Your task to perform on an android device: open app "Venmo" Image 0: 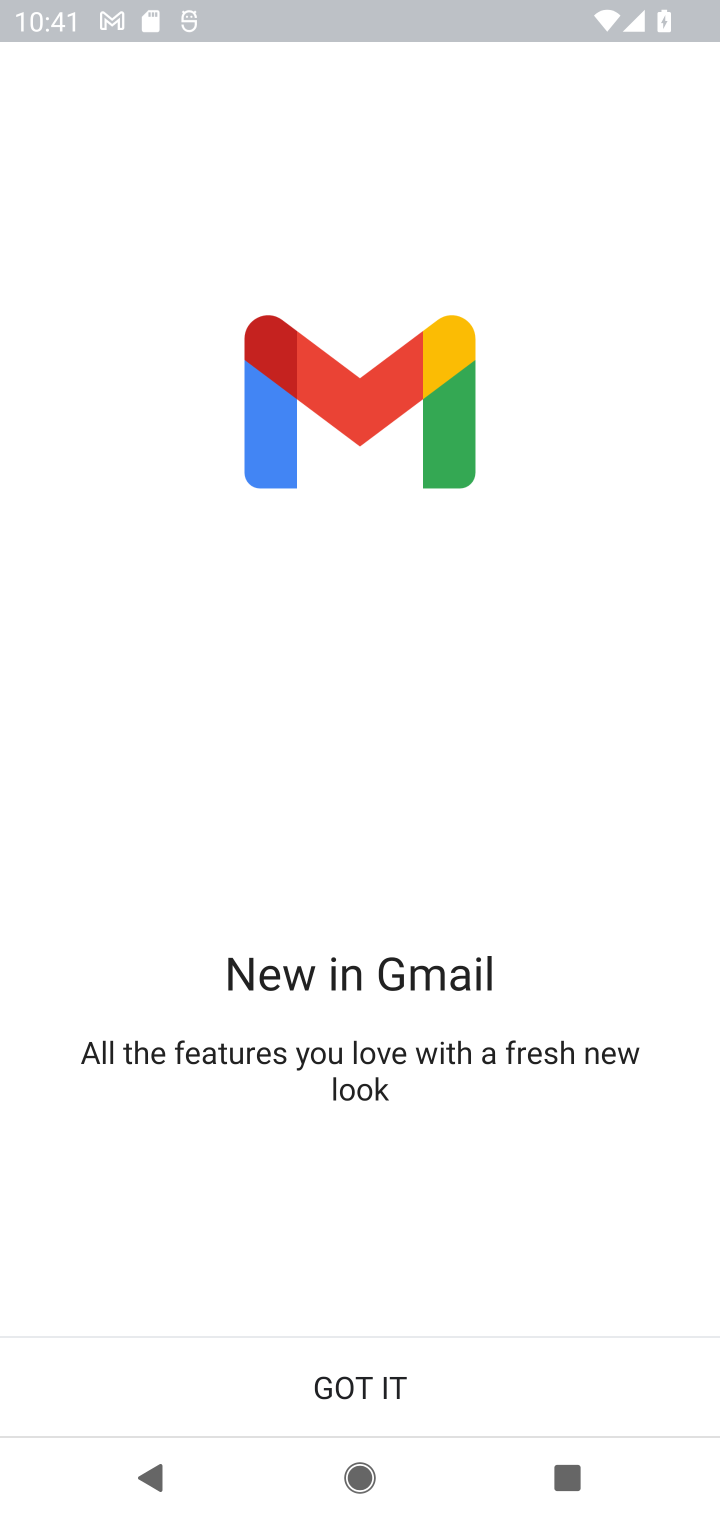
Step 0: press home button
Your task to perform on an android device: open app "Venmo" Image 1: 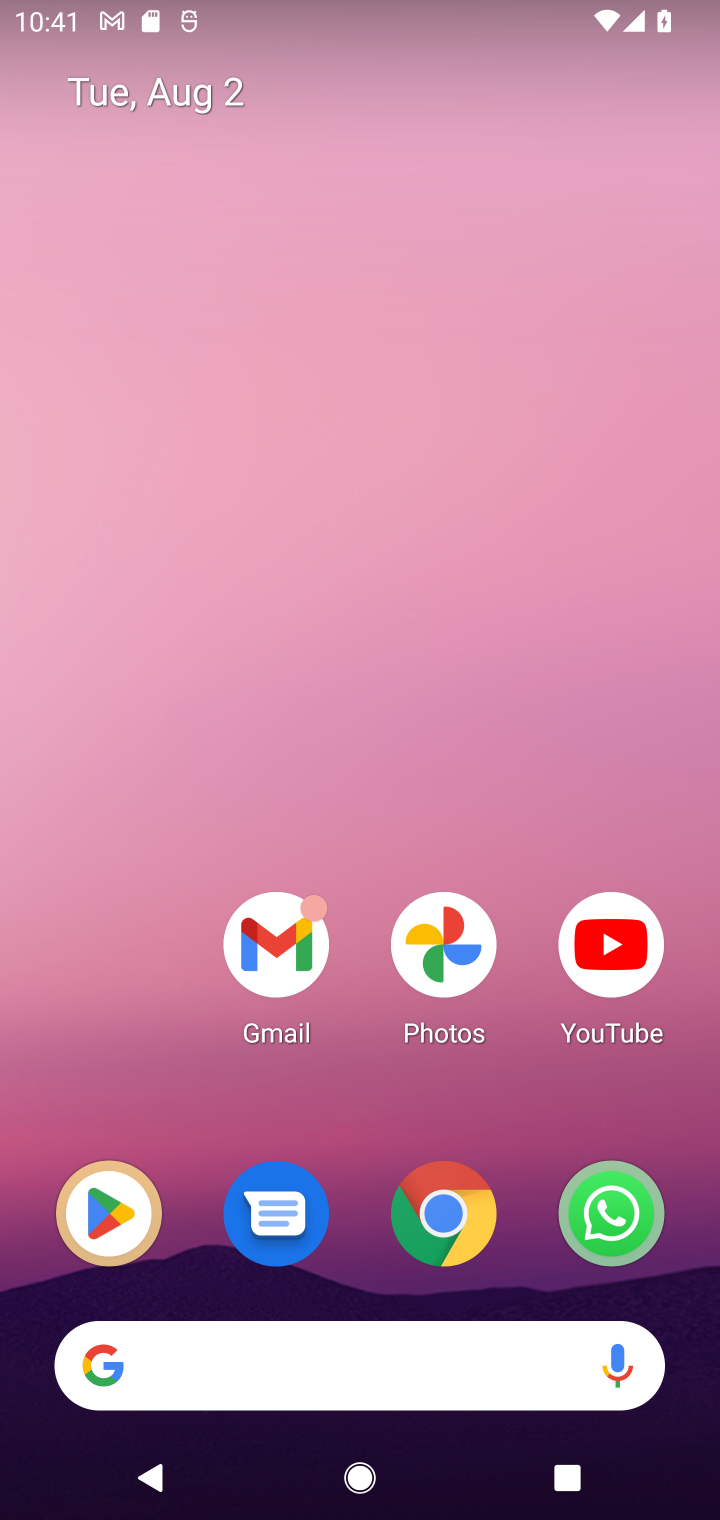
Step 1: click (96, 1199)
Your task to perform on an android device: open app "Venmo" Image 2: 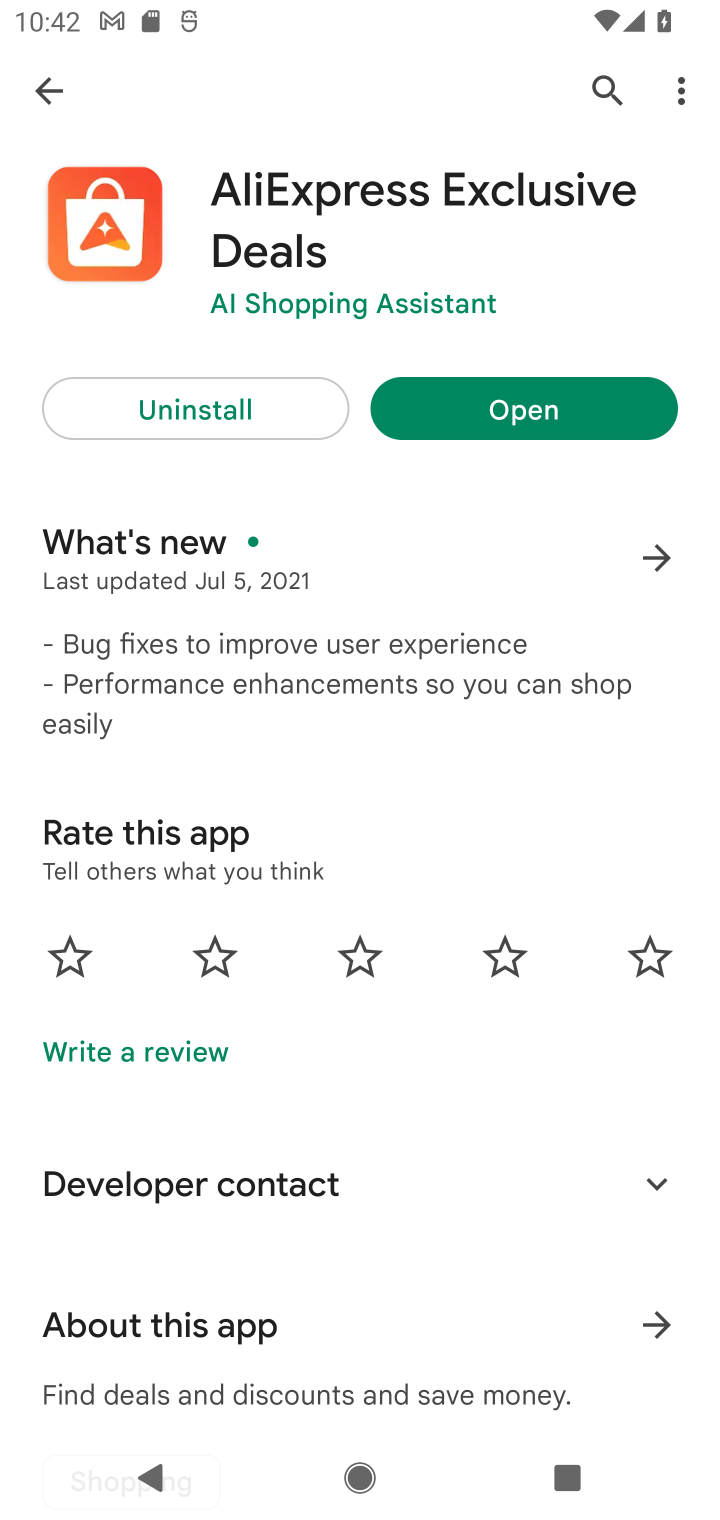
Step 2: click (39, 103)
Your task to perform on an android device: open app "Venmo" Image 3: 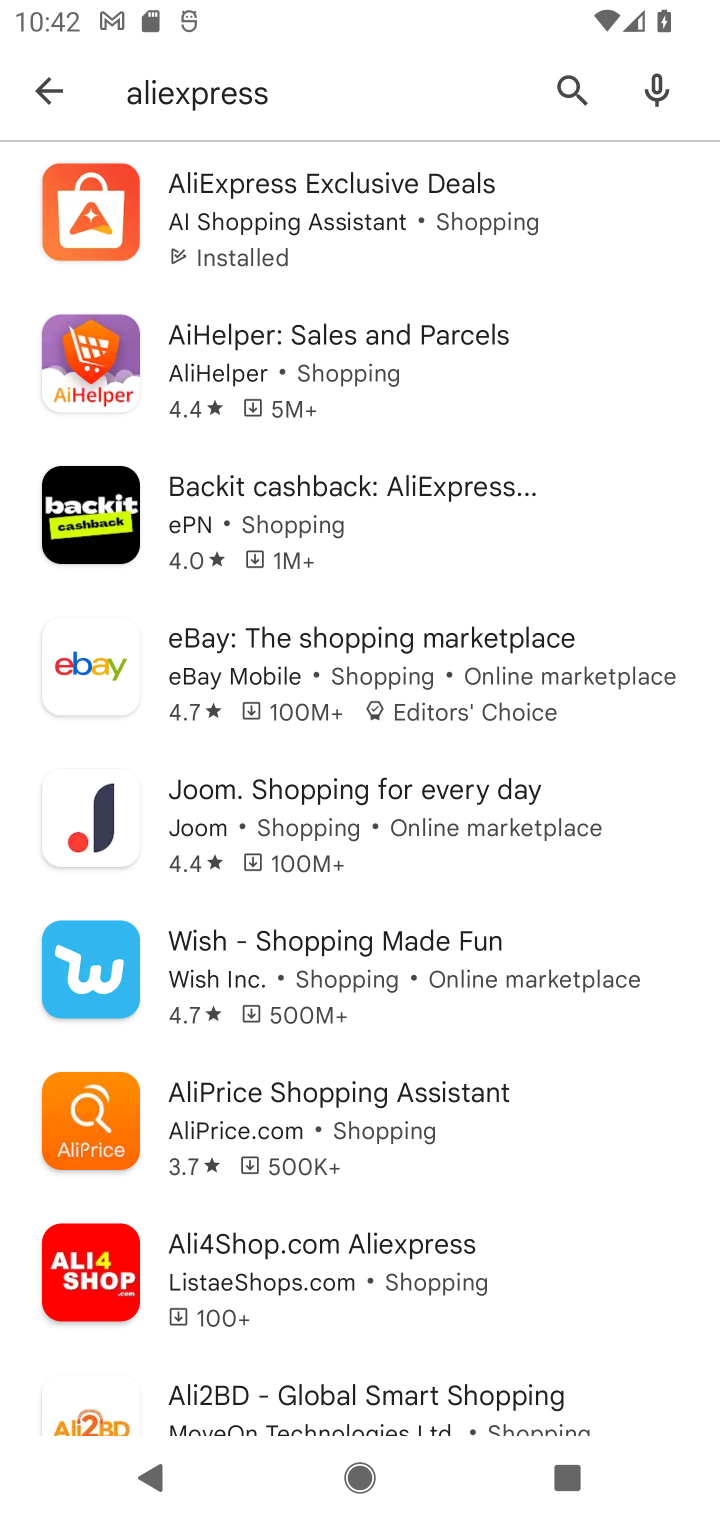
Step 3: click (47, 87)
Your task to perform on an android device: open app "Venmo" Image 4: 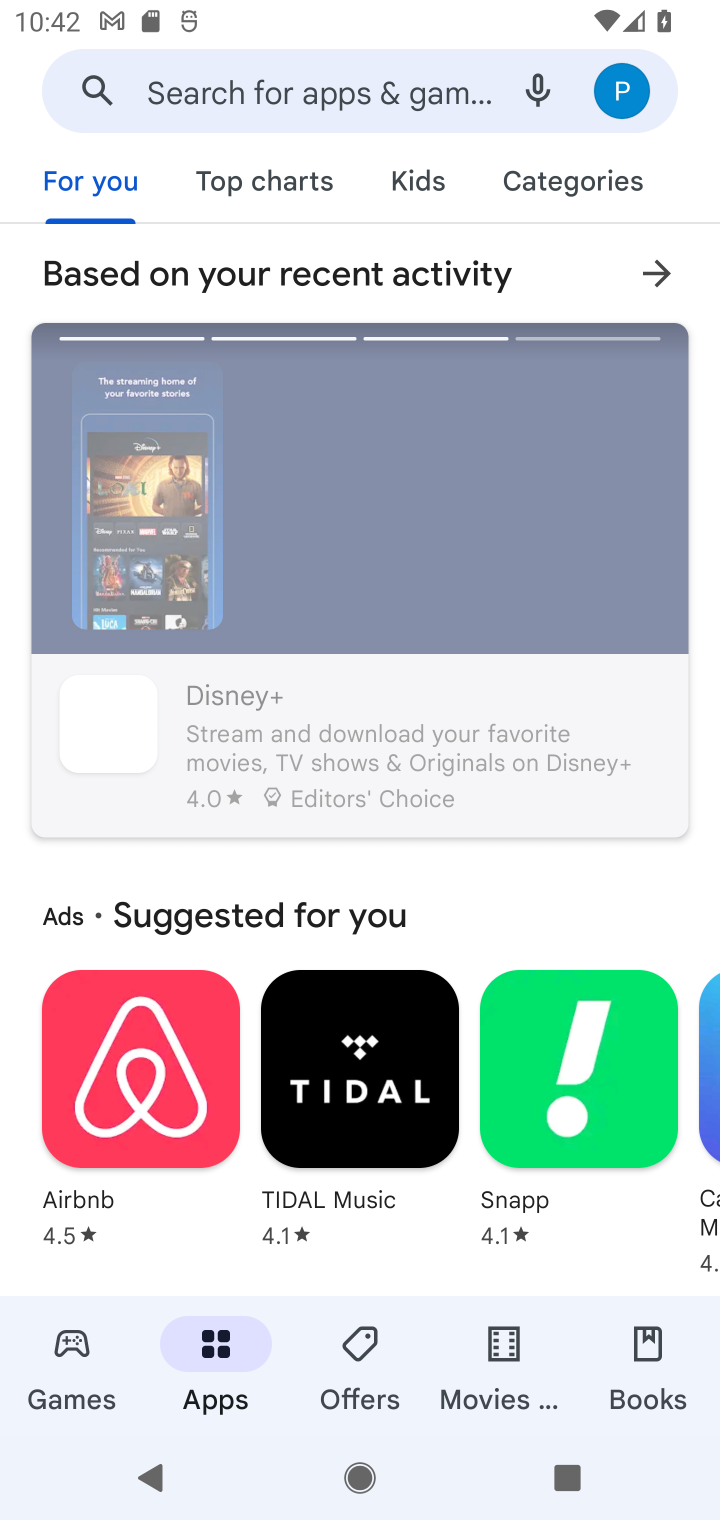
Step 4: click (393, 105)
Your task to perform on an android device: open app "Venmo" Image 5: 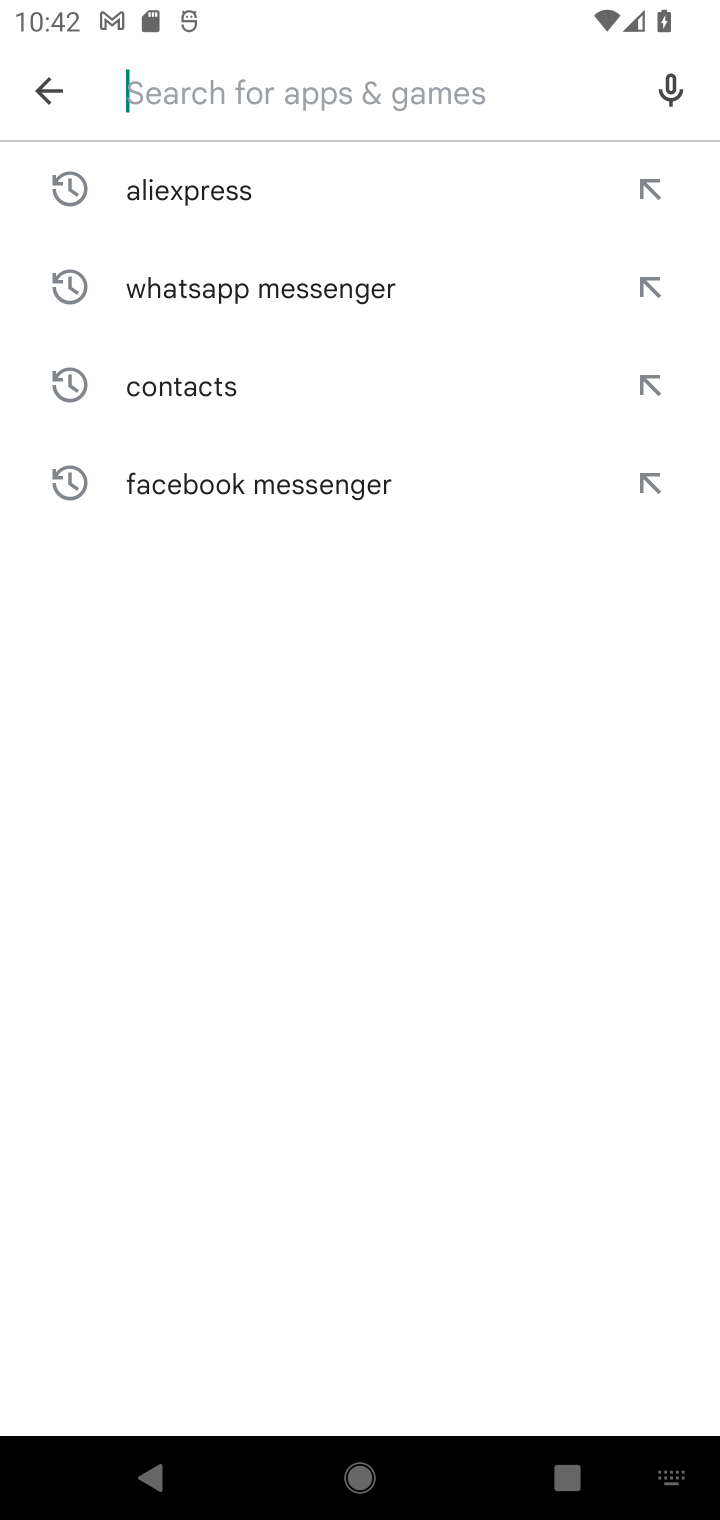
Step 5: type "Venmo"
Your task to perform on an android device: open app "Venmo" Image 6: 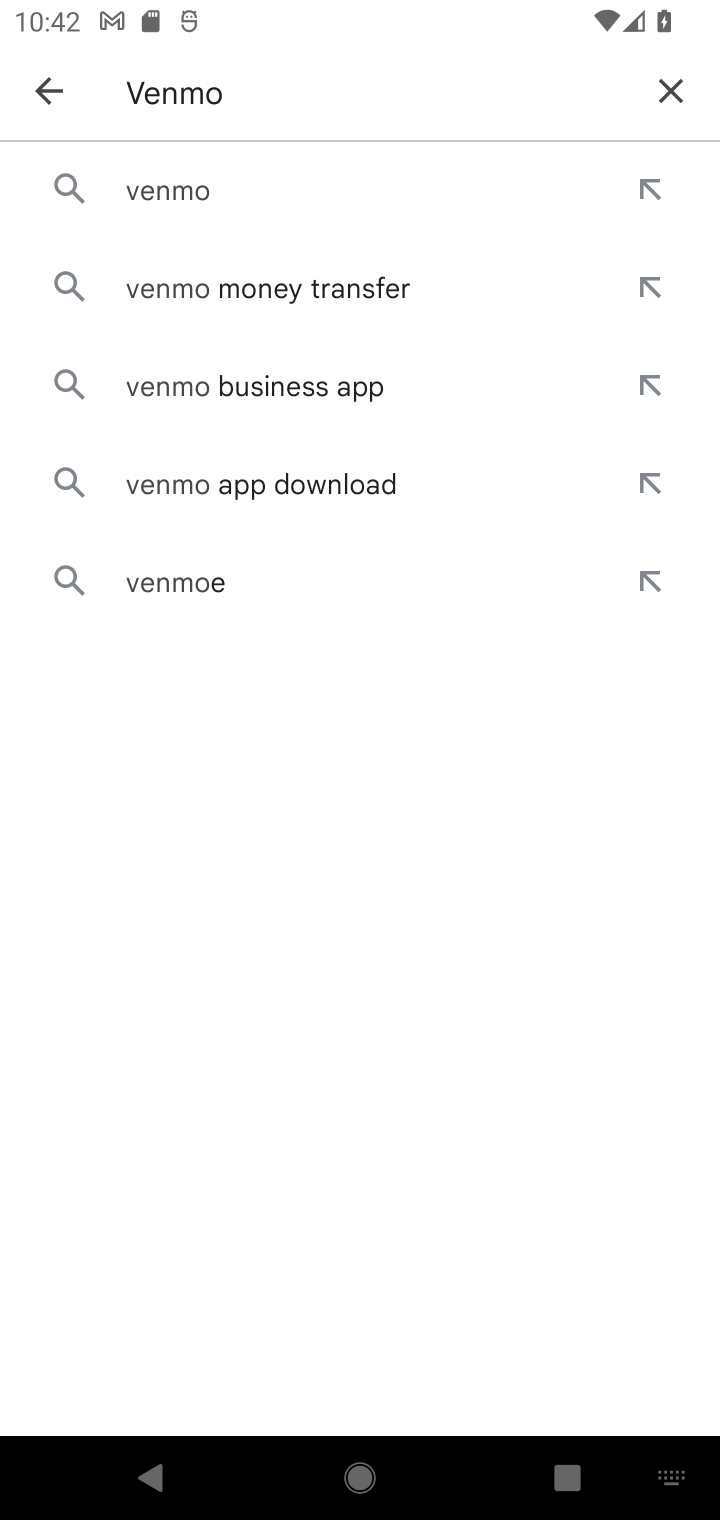
Step 6: click (154, 203)
Your task to perform on an android device: open app "Venmo" Image 7: 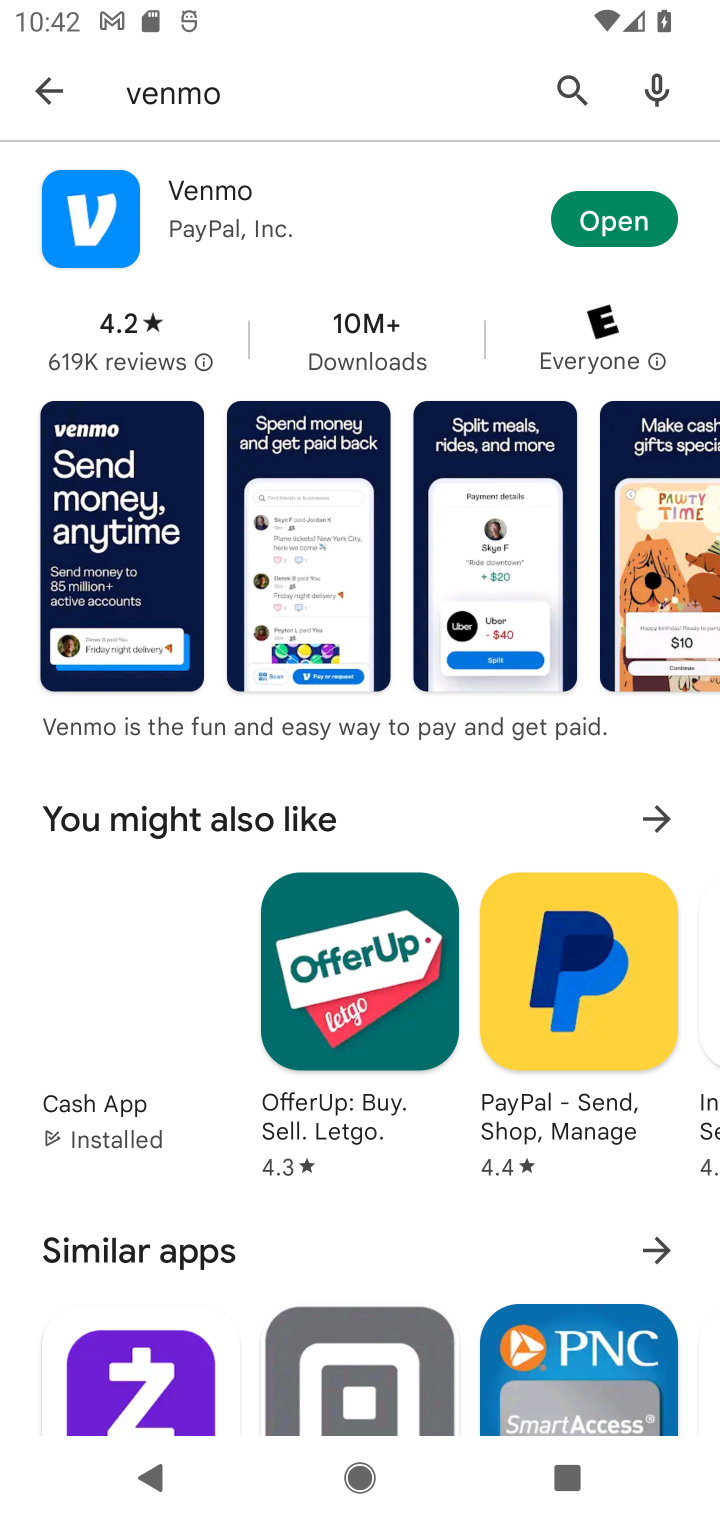
Step 7: click (595, 205)
Your task to perform on an android device: open app "Venmo" Image 8: 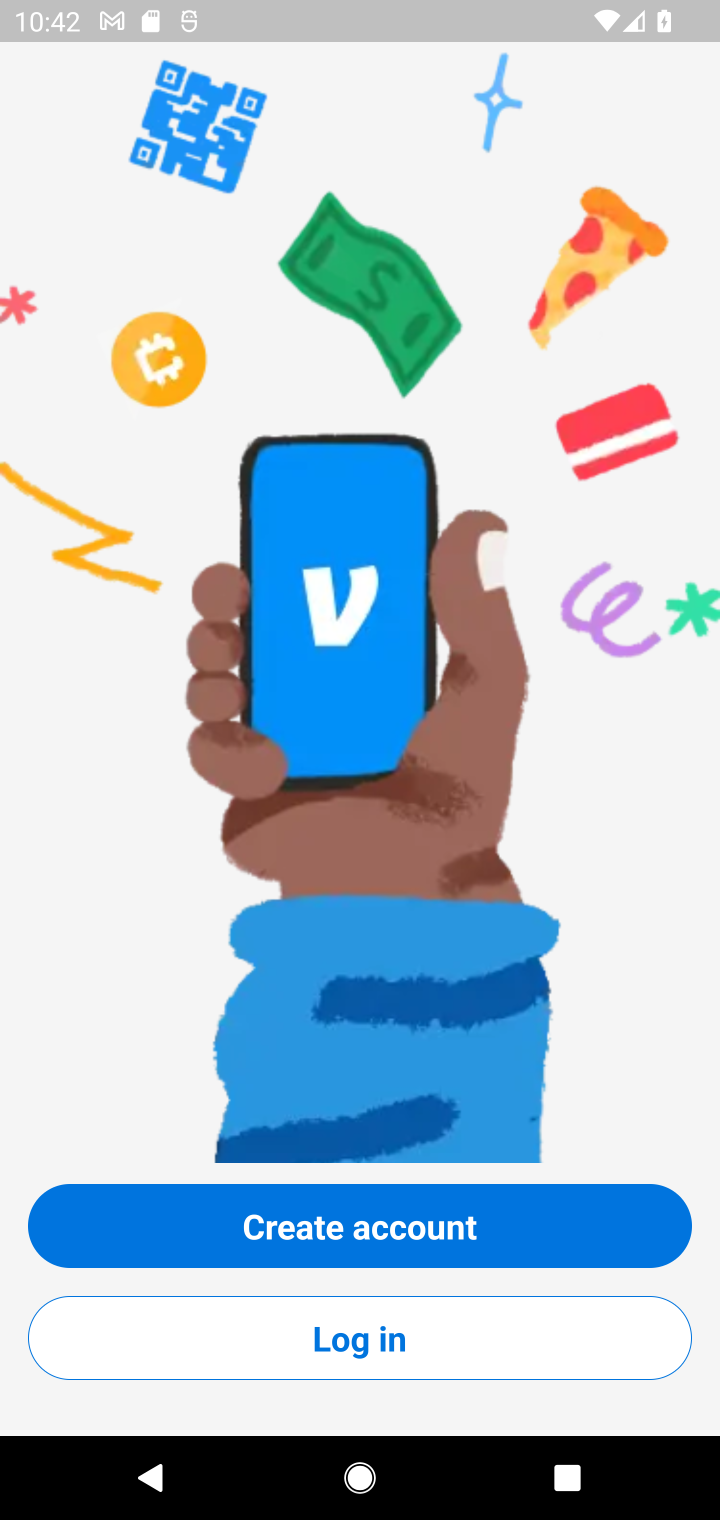
Step 8: task complete